Your task to perform on an android device: Search for the new Nintendo switch on Best Buy Image 0: 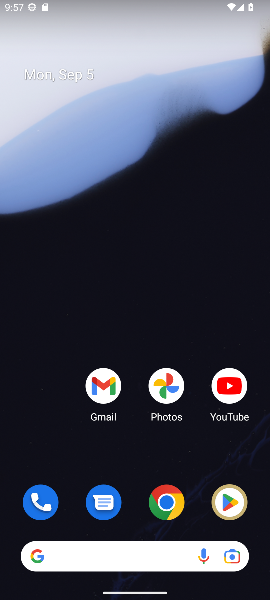
Step 0: drag from (263, 497) to (267, 3)
Your task to perform on an android device: Search for the new Nintendo switch on Best Buy Image 1: 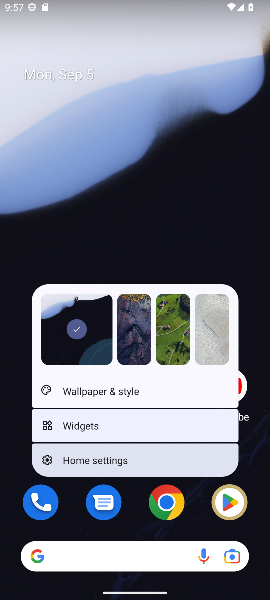
Step 1: click (257, 149)
Your task to perform on an android device: Search for the new Nintendo switch on Best Buy Image 2: 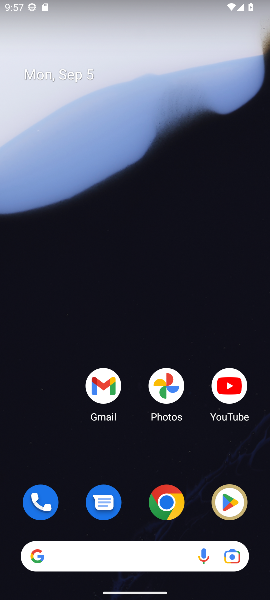
Step 2: drag from (247, 250) to (171, 0)
Your task to perform on an android device: Search for the new Nintendo switch on Best Buy Image 3: 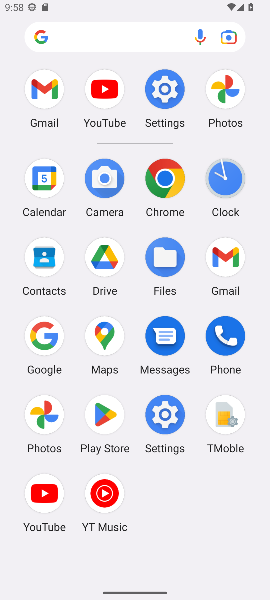
Step 3: click (42, 333)
Your task to perform on an android device: Search for the new Nintendo switch on Best Buy Image 4: 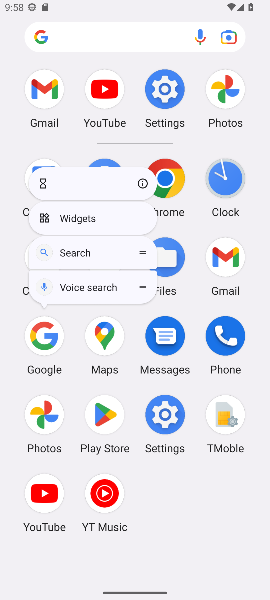
Step 4: click (41, 333)
Your task to perform on an android device: Search for the new Nintendo switch on Best Buy Image 5: 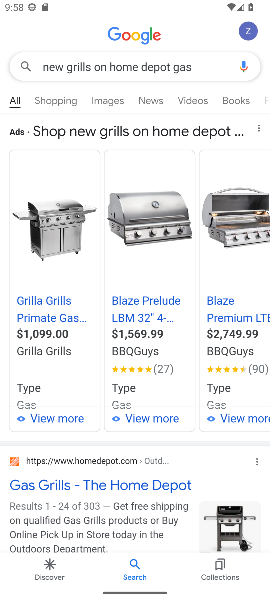
Step 5: press back button
Your task to perform on an android device: Search for the new Nintendo switch on Best Buy Image 6: 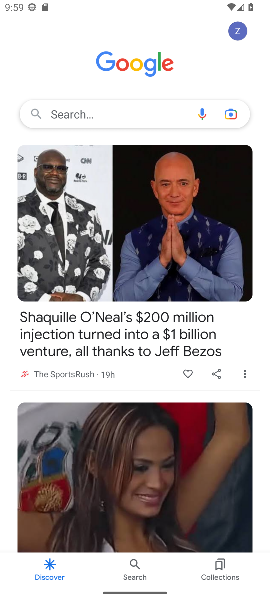
Step 6: click (70, 106)
Your task to perform on an android device: Search for the new Nintendo switch on Best Buy Image 7: 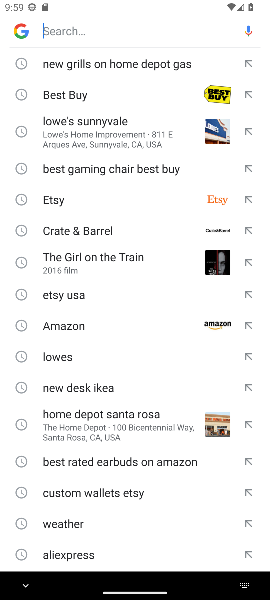
Step 7: type " new Nintendo switch on Best Buy"
Your task to perform on an android device: Search for the new Nintendo switch on Best Buy Image 8: 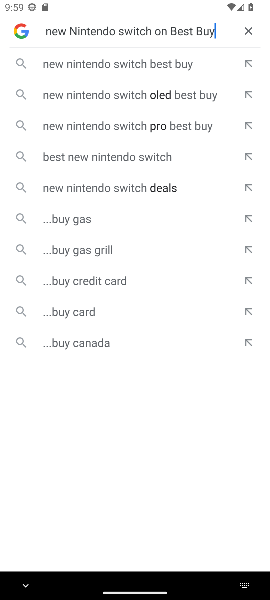
Step 8: click (97, 74)
Your task to perform on an android device: Search for the new Nintendo switch on Best Buy Image 9: 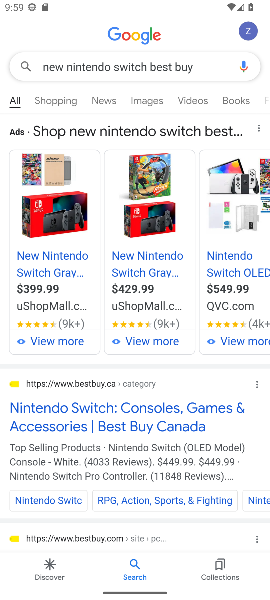
Step 9: task complete